Your task to perform on an android device: Open Chrome and go to settings Image 0: 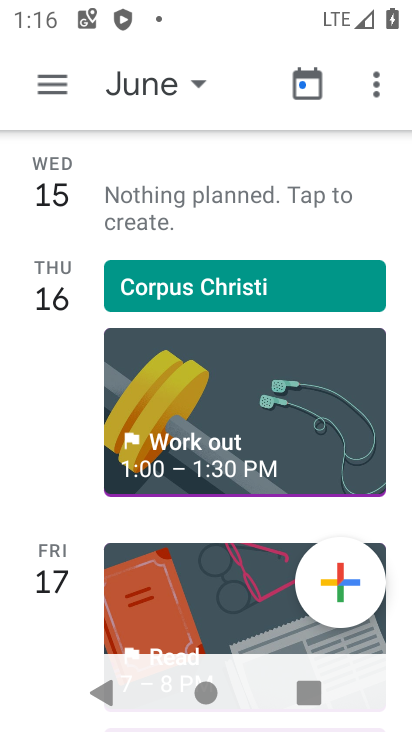
Step 0: press home button
Your task to perform on an android device: Open Chrome and go to settings Image 1: 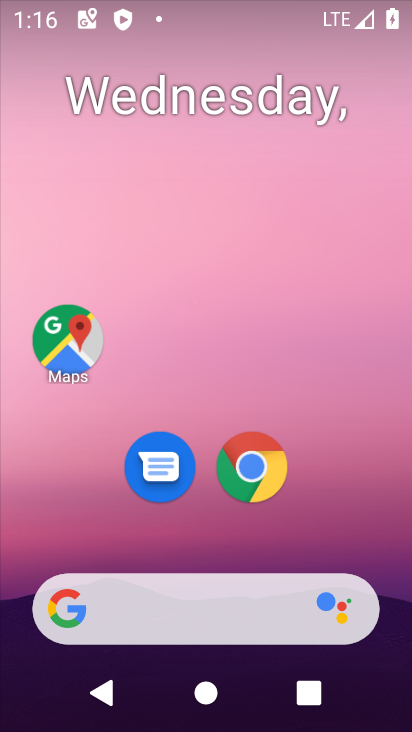
Step 1: click (252, 468)
Your task to perform on an android device: Open Chrome and go to settings Image 2: 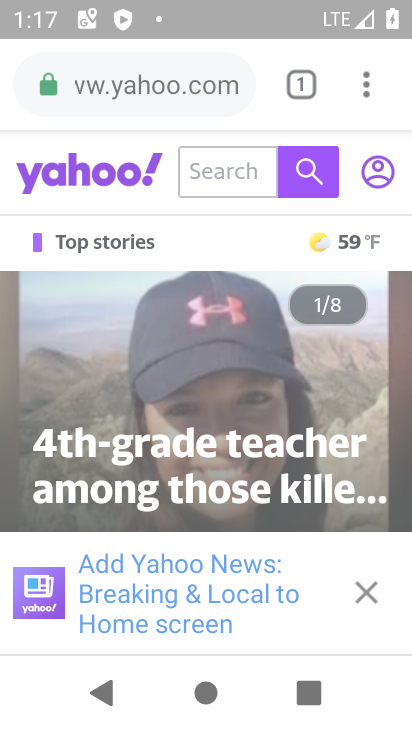
Step 2: click (258, 452)
Your task to perform on an android device: Open Chrome and go to settings Image 3: 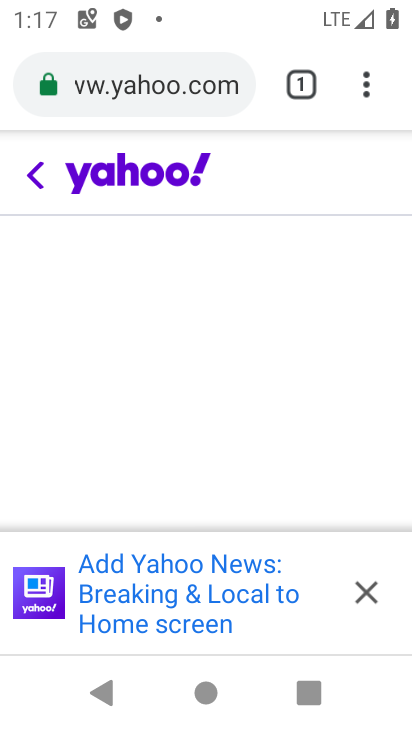
Step 3: click (353, 83)
Your task to perform on an android device: Open Chrome and go to settings Image 4: 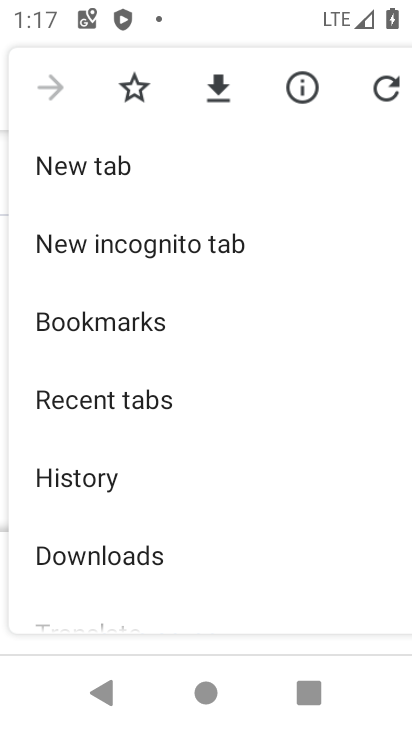
Step 4: drag from (306, 496) to (344, 147)
Your task to perform on an android device: Open Chrome and go to settings Image 5: 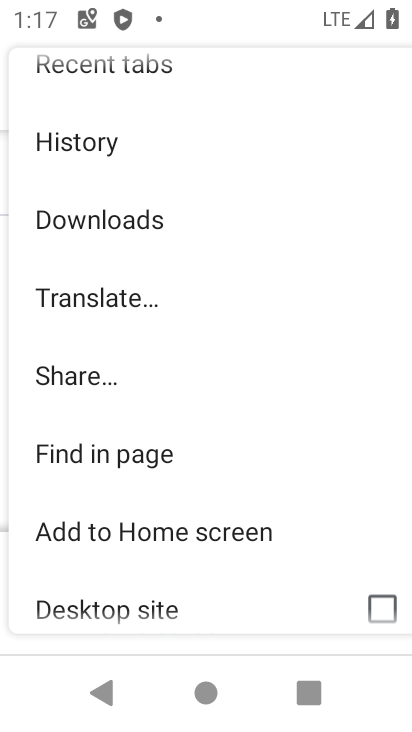
Step 5: drag from (246, 544) to (261, 159)
Your task to perform on an android device: Open Chrome and go to settings Image 6: 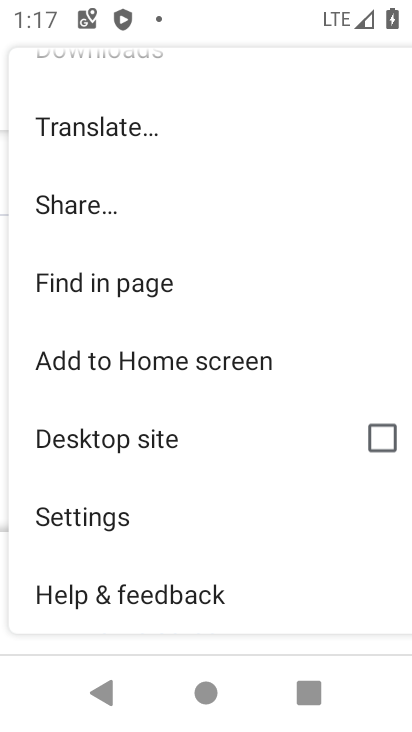
Step 6: click (90, 517)
Your task to perform on an android device: Open Chrome and go to settings Image 7: 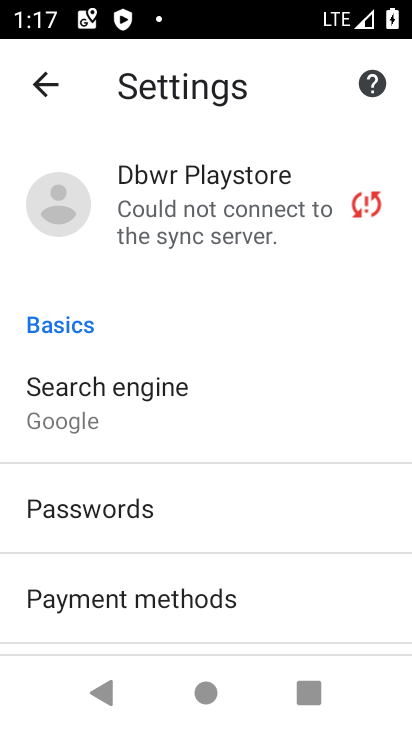
Step 7: task complete